Your task to perform on an android device: Go to calendar. Show me events next week Image 0: 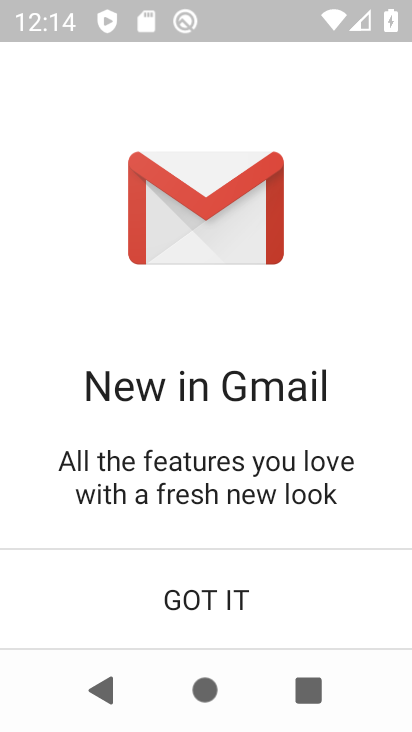
Step 0: press home button
Your task to perform on an android device: Go to calendar. Show me events next week Image 1: 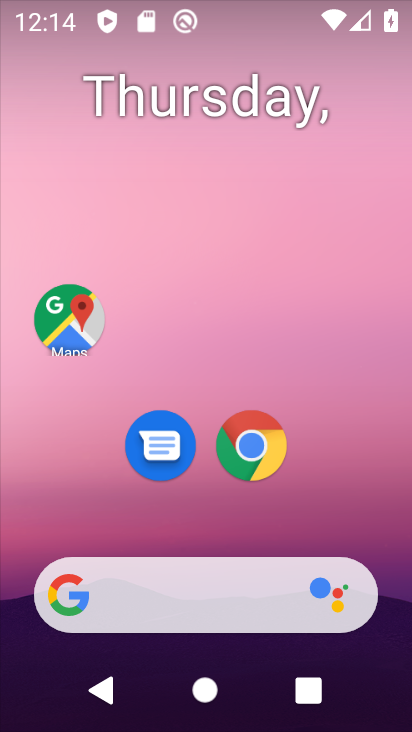
Step 1: click (334, 107)
Your task to perform on an android device: Go to calendar. Show me events next week Image 2: 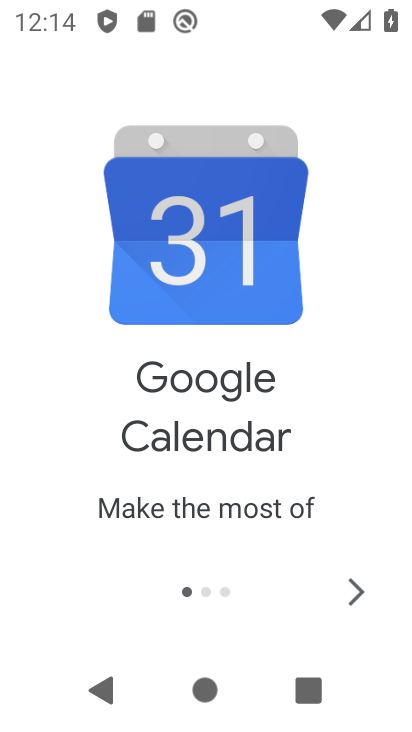
Step 2: click (346, 589)
Your task to perform on an android device: Go to calendar. Show me events next week Image 3: 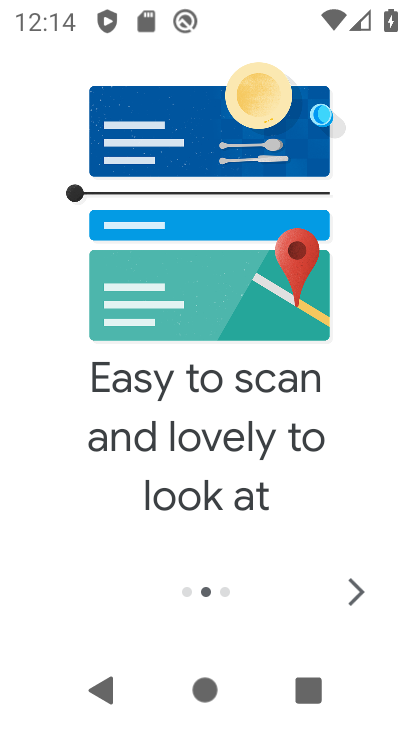
Step 3: click (353, 588)
Your task to perform on an android device: Go to calendar. Show me events next week Image 4: 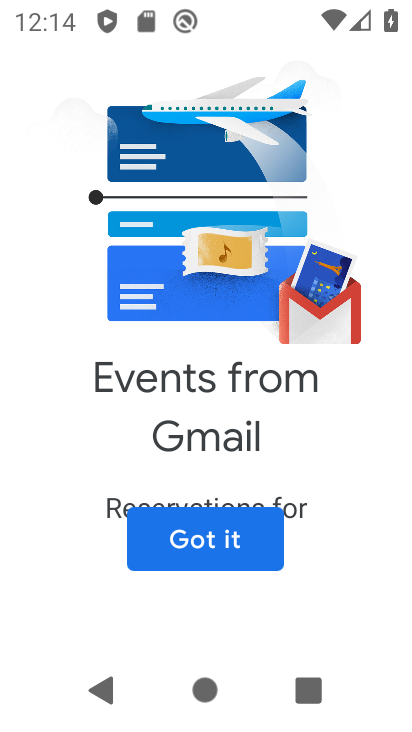
Step 4: click (261, 543)
Your task to perform on an android device: Go to calendar. Show me events next week Image 5: 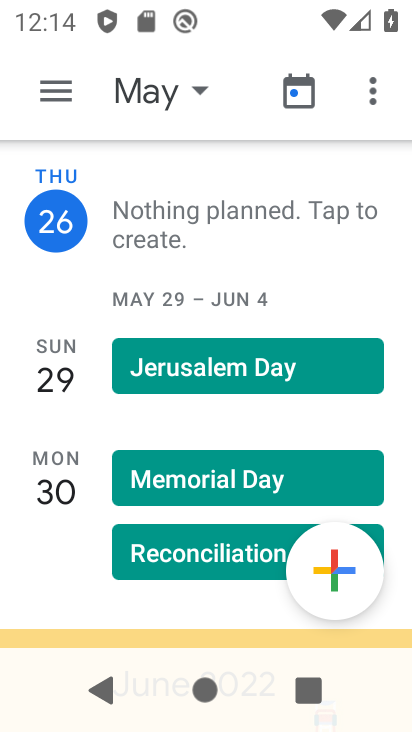
Step 5: click (148, 86)
Your task to perform on an android device: Go to calendar. Show me events next week Image 6: 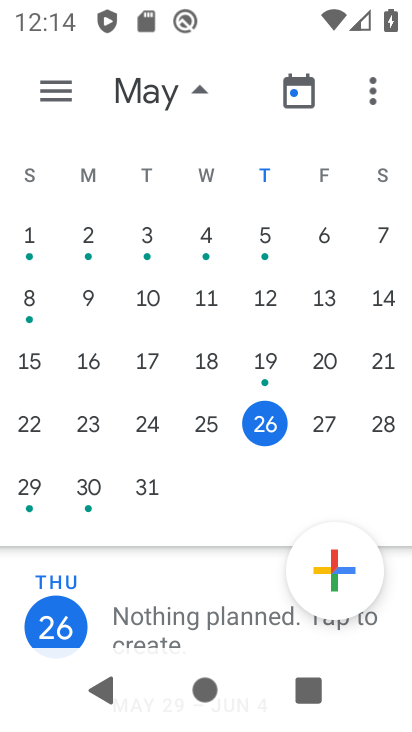
Step 6: click (43, 482)
Your task to perform on an android device: Go to calendar. Show me events next week Image 7: 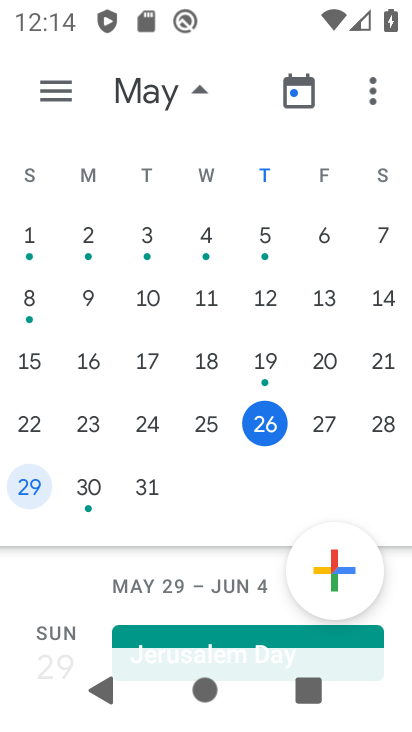
Step 7: task complete